Your task to perform on an android device: turn on airplane mode Image 0: 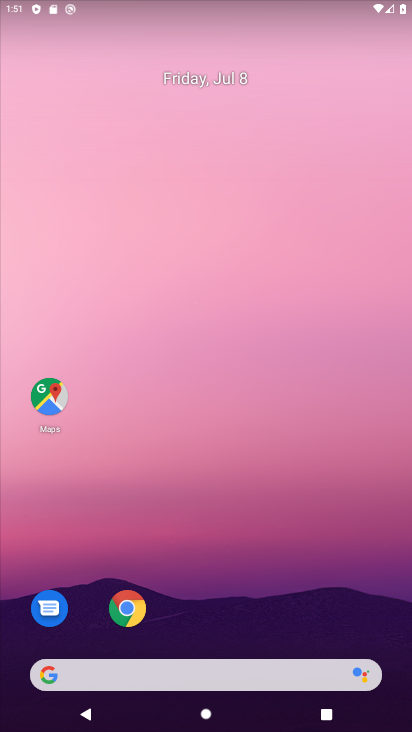
Step 0: drag from (220, 559) to (206, 397)
Your task to perform on an android device: turn on airplane mode Image 1: 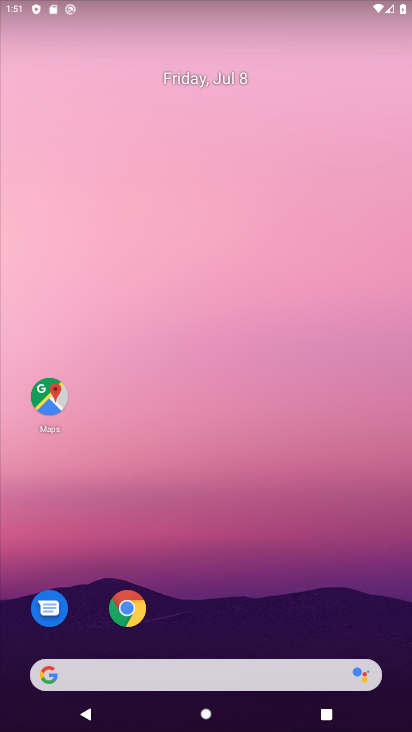
Step 1: drag from (273, 552) to (223, 145)
Your task to perform on an android device: turn on airplane mode Image 2: 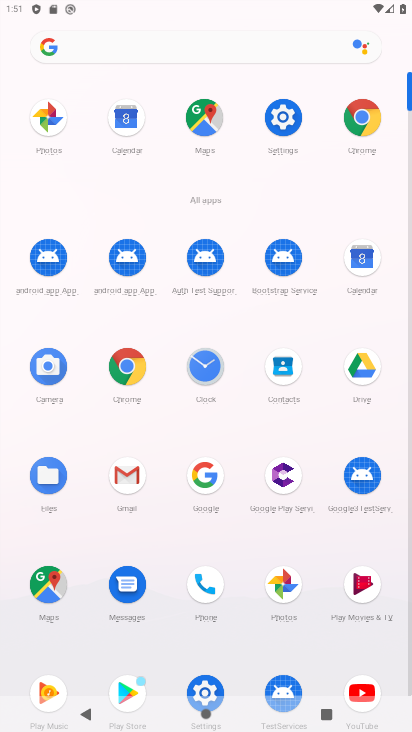
Step 2: click (283, 100)
Your task to perform on an android device: turn on airplane mode Image 3: 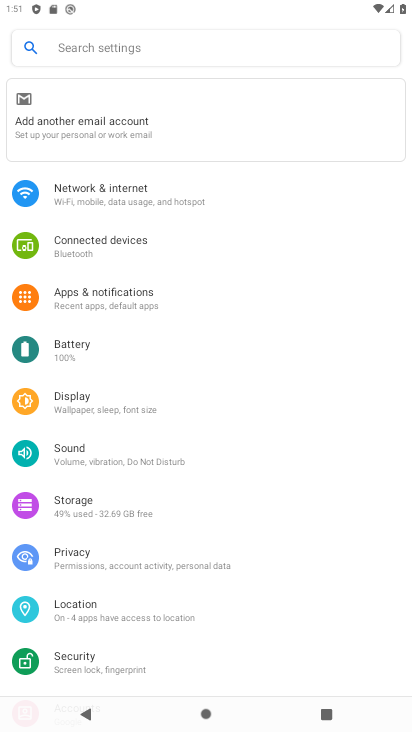
Step 3: click (90, 182)
Your task to perform on an android device: turn on airplane mode Image 4: 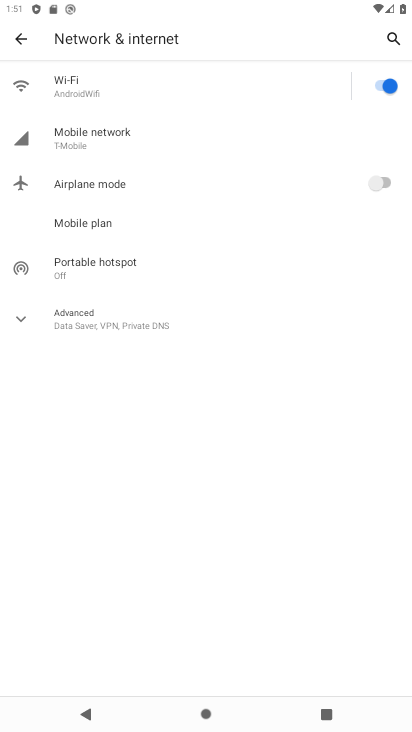
Step 4: click (378, 172)
Your task to perform on an android device: turn on airplane mode Image 5: 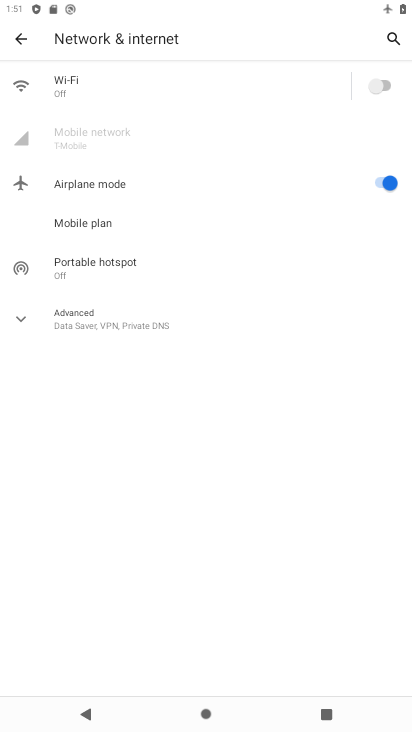
Step 5: task complete